Your task to perform on an android device: Go to Google Image 0: 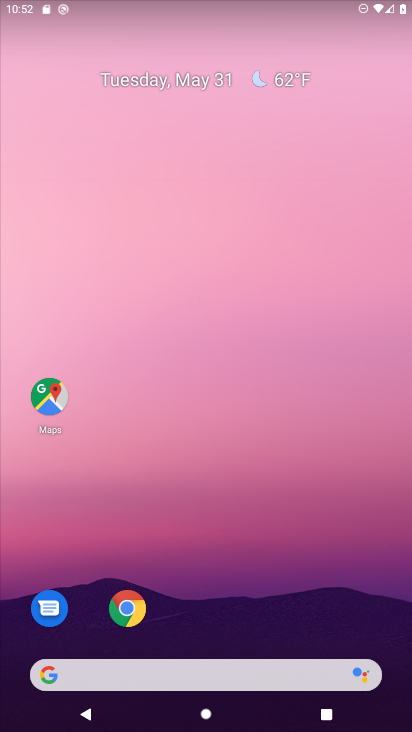
Step 0: drag from (369, 631) to (325, 219)
Your task to perform on an android device: Go to Google Image 1: 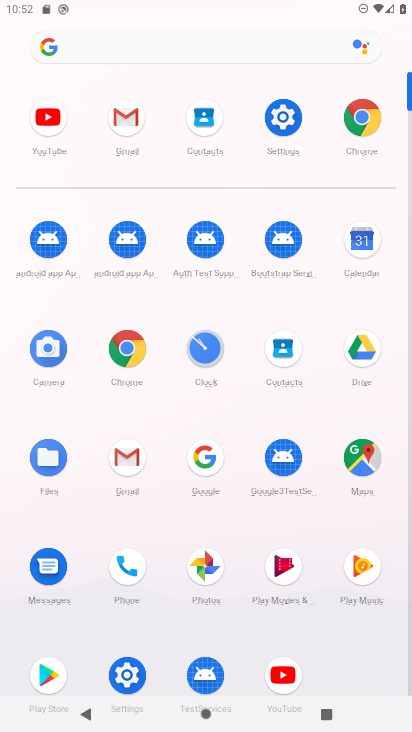
Step 1: click (207, 477)
Your task to perform on an android device: Go to Google Image 2: 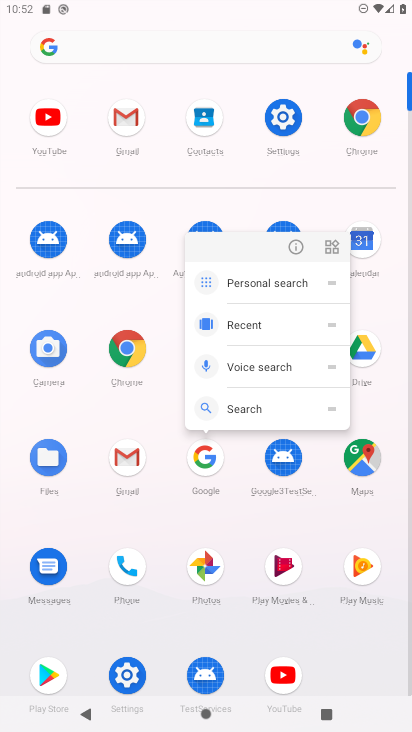
Step 2: click (210, 475)
Your task to perform on an android device: Go to Google Image 3: 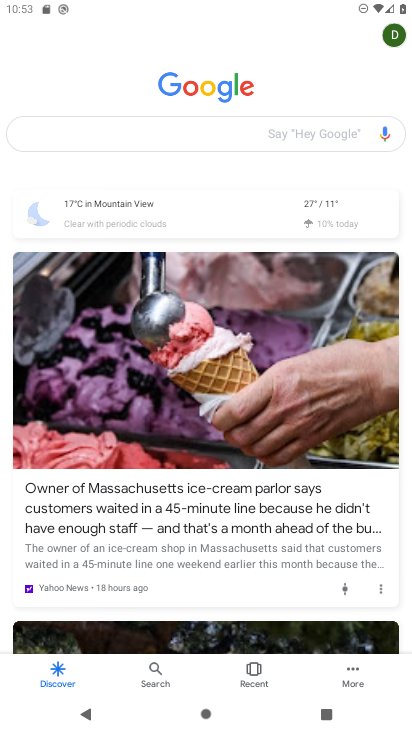
Step 3: task complete